Your task to perform on an android device: open app "PUBG MOBILE" (install if not already installed) Image 0: 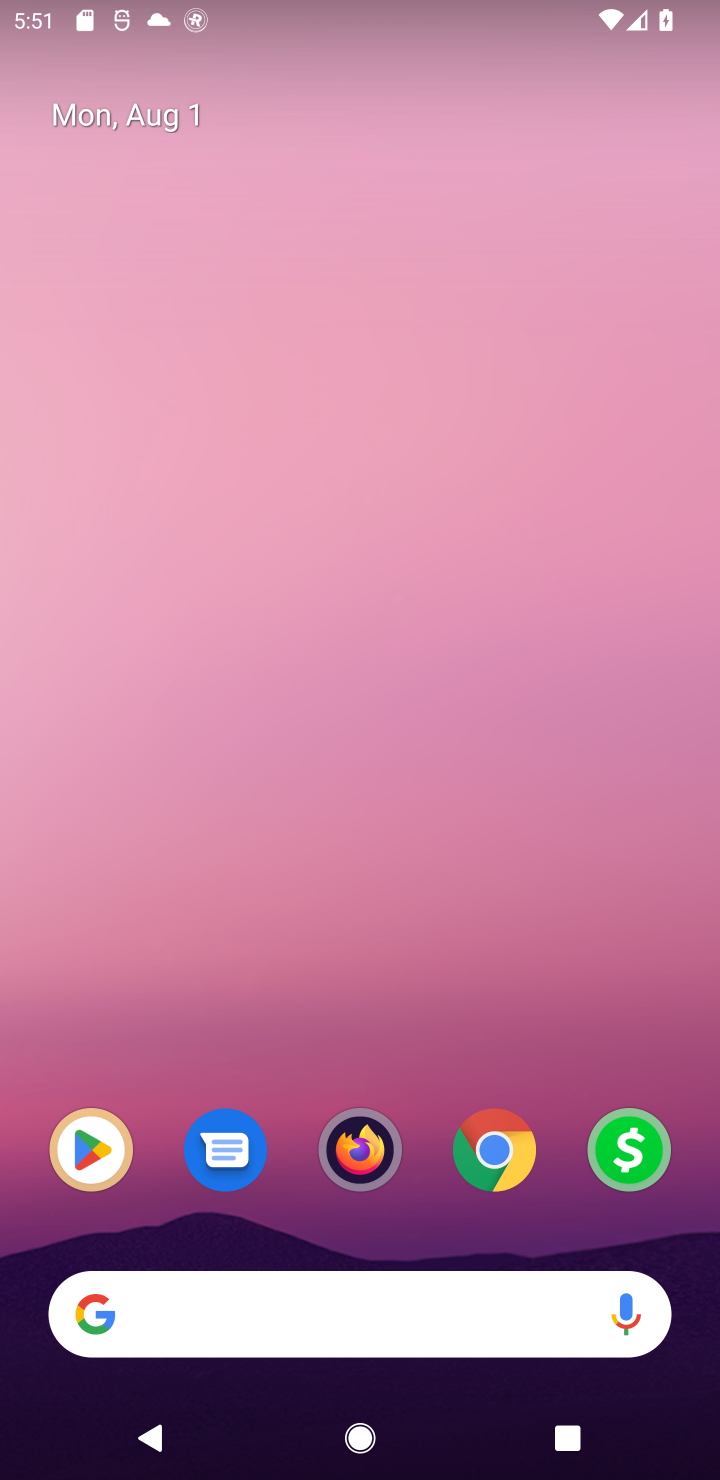
Step 0: task impossible